Your task to perform on an android device: Go to Yahoo.com Image 0: 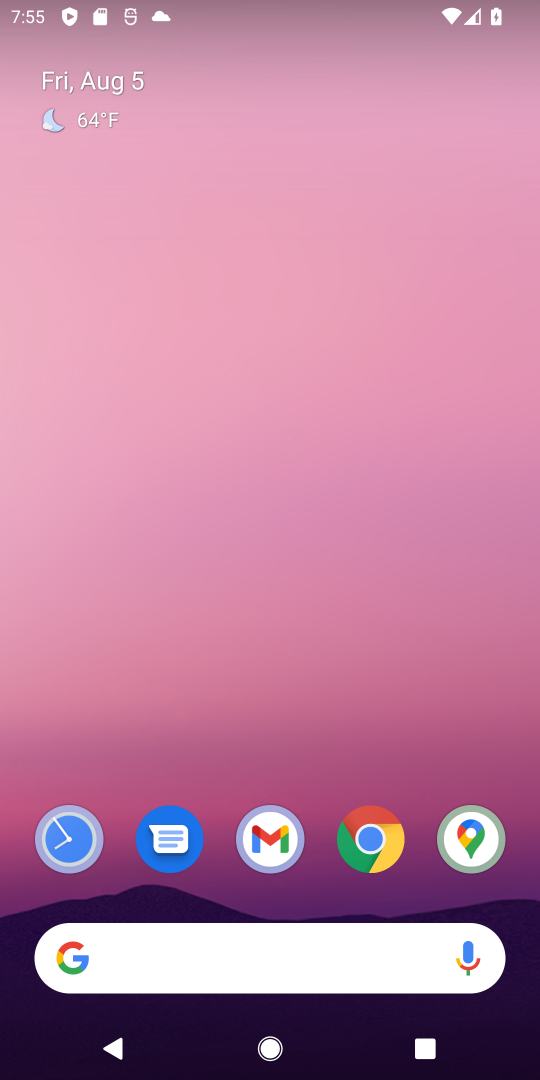
Step 0: click (371, 842)
Your task to perform on an android device: Go to Yahoo.com Image 1: 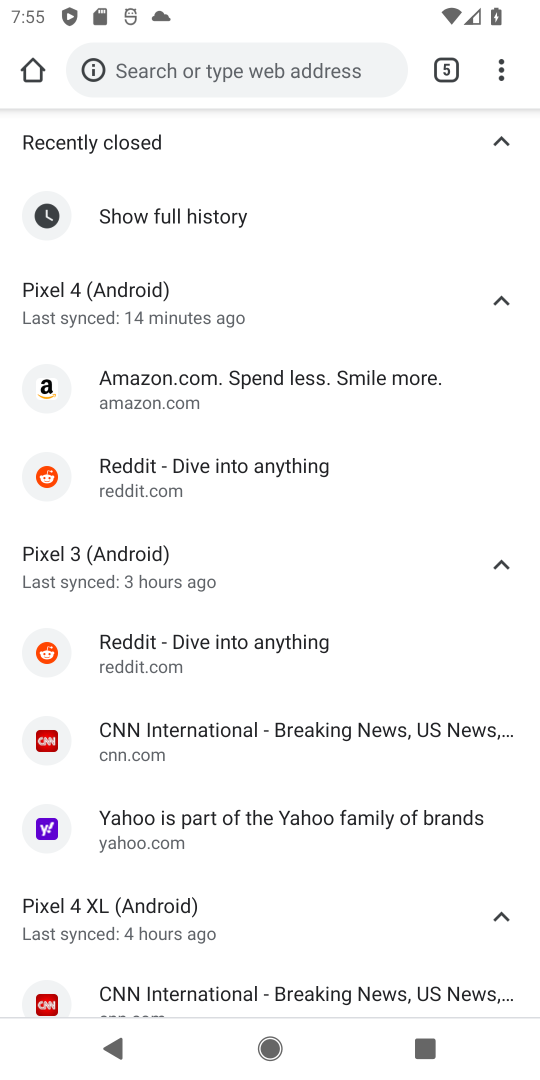
Step 1: click (499, 76)
Your task to perform on an android device: Go to Yahoo.com Image 2: 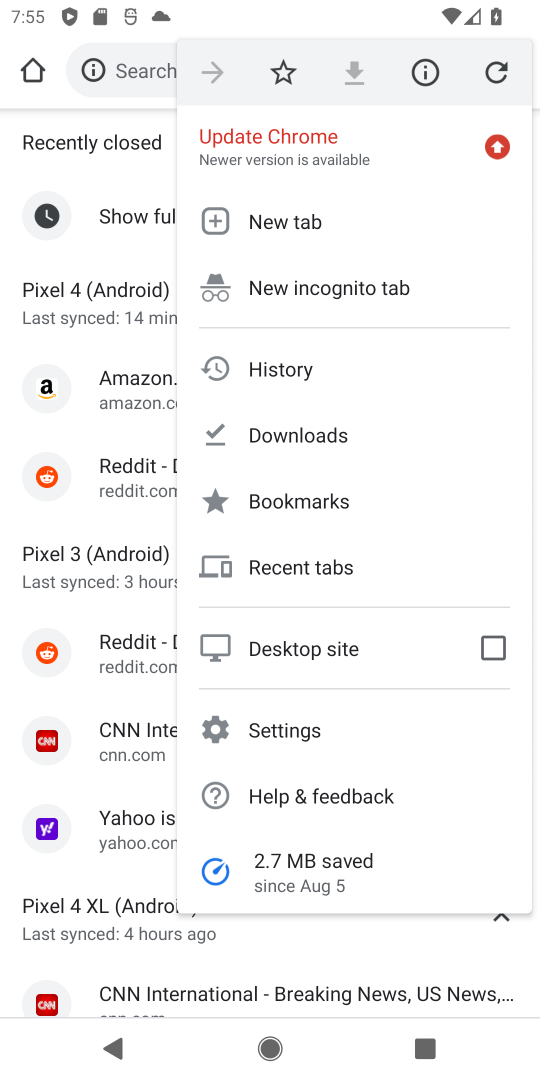
Step 2: click (280, 227)
Your task to perform on an android device: Go to Yahoo.com Image 3: 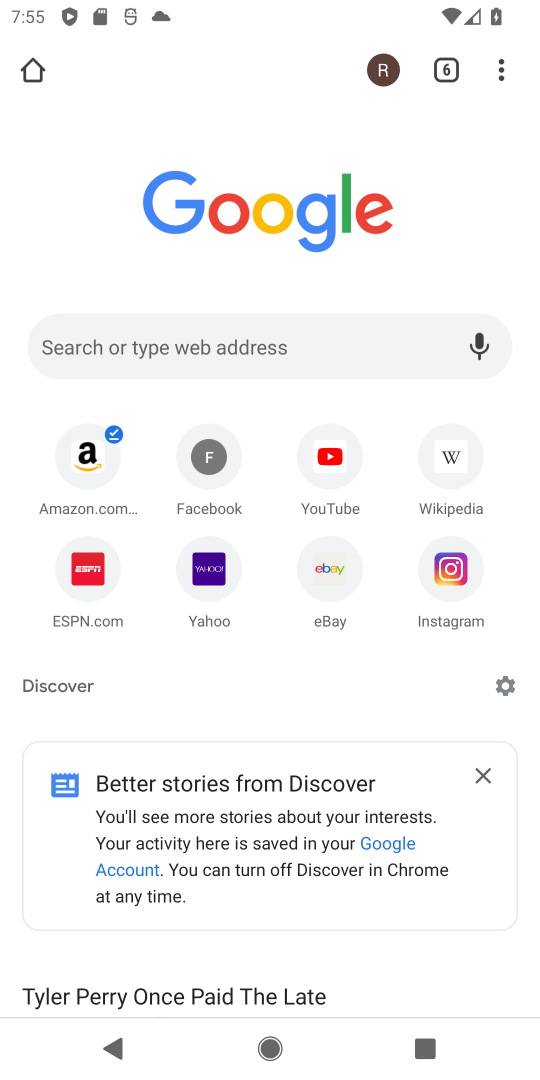
Step 3: click (194, 581)
Your task to perform on an android device: Go to Yahoo.com Image 4: 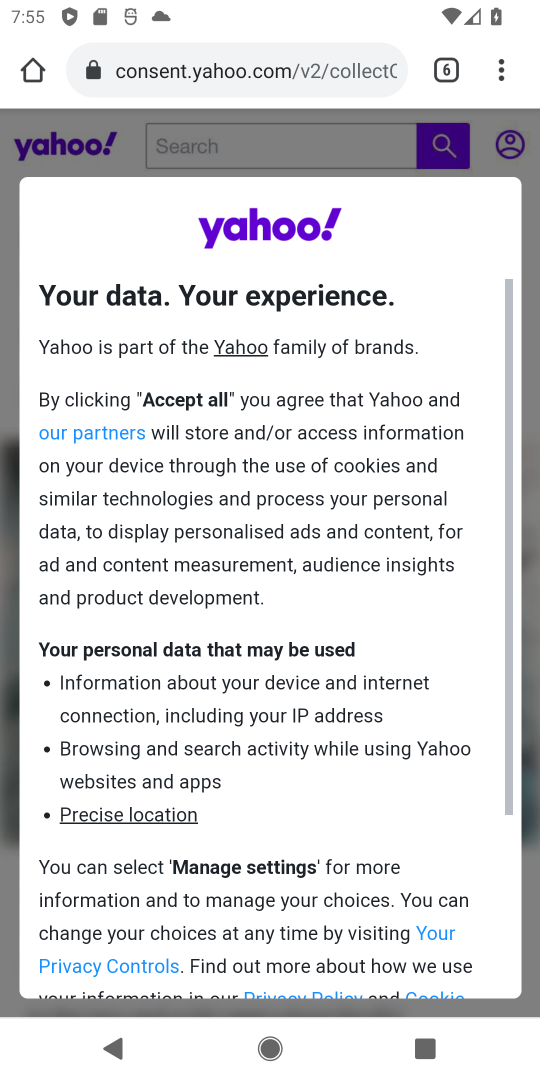
Step 4: task complete